Your task to perform on an android device: Search for Mexican restaurants on Maps Image 0: 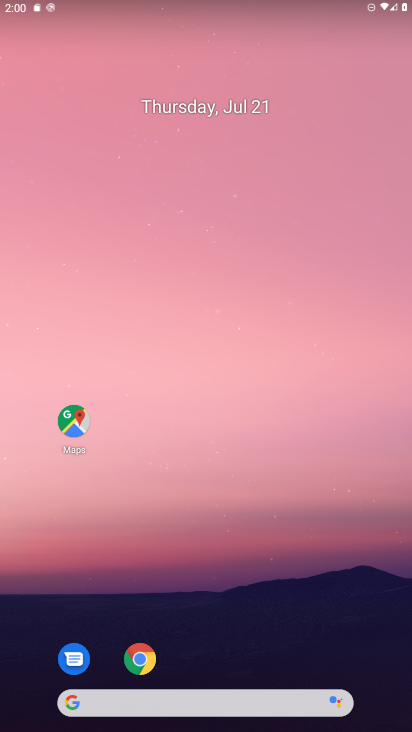
Step 0: click (70, 412)
Your task to perform on an android device: Search for Mexican restaurants on Maps Image 1: 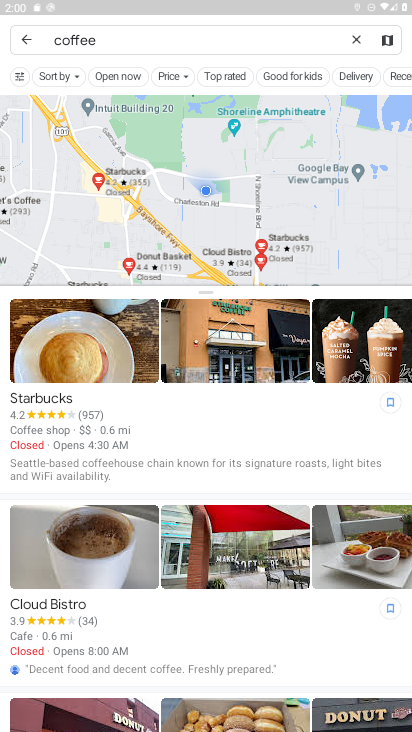
Step 1: click (357, 36)
Your task to perform on an android device: Search for Mexican restaurants on Maps Image 2: 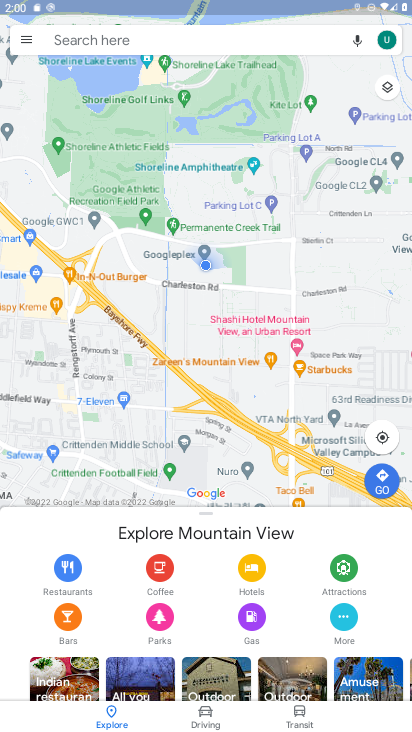
Step 2: click (209, 34)
Your task to perform on an android device: Search for Mexican restaurants on Maps Image 3: 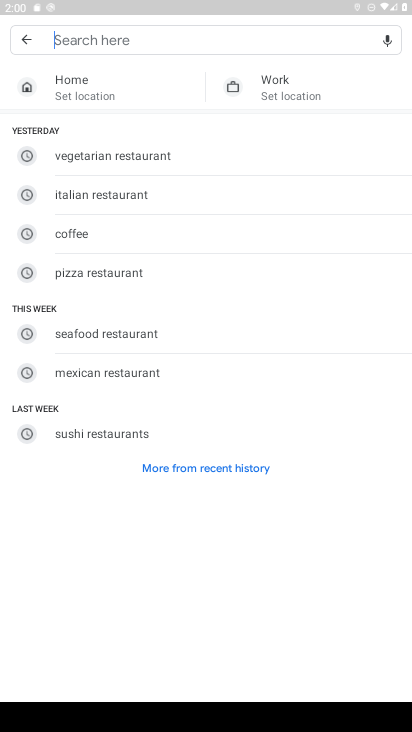
Step 3: type "Mexican restaurants "
Your task to perform on an android device: Search for Mexican restaurants on Maps Image 4: 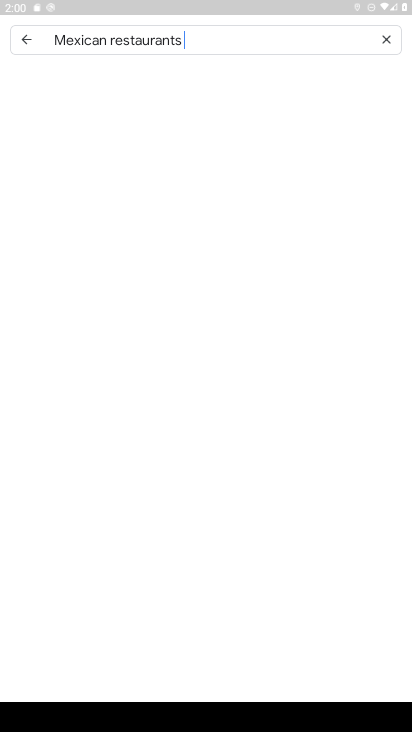
Step 4: type ""
Your task to perform on an android device: Search for Mexican restaurants on Maps Image 5: 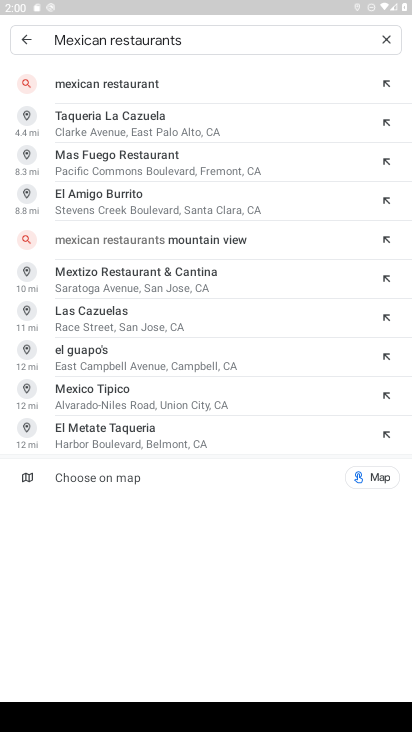
Step 5: click (185, 87)
Your task to perform on an android device: Search for Mexican restaurants on Maps Image 6: 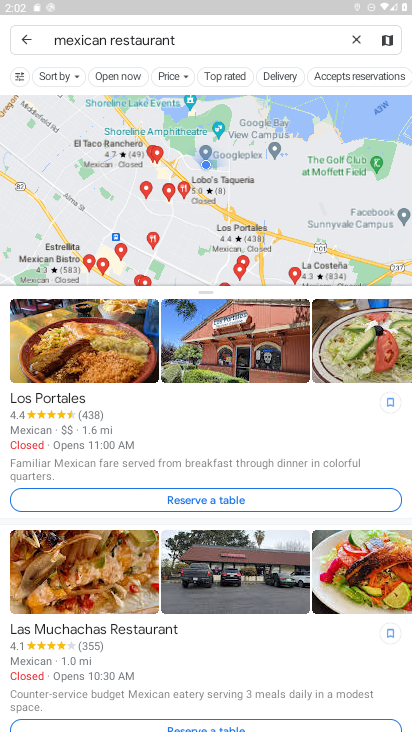
Step 6: task complete